Your task to perform on an android device: Go to Yahoo.com Image 0: 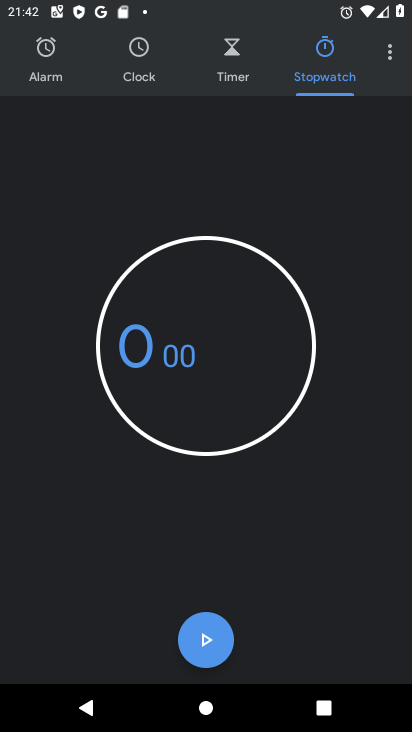
Step 0: press home button
Your task to perform on an android device: Go to Yahoo.com Image 1: 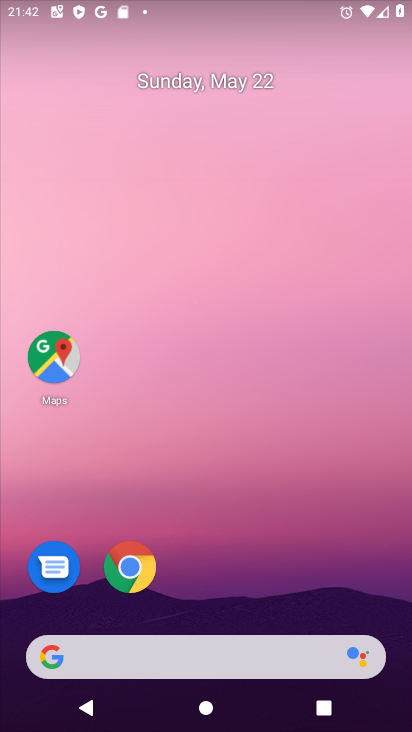
Step 1: click (126, 564)
Your task to perform on an android device: Go to Yahoo.com Image 2: 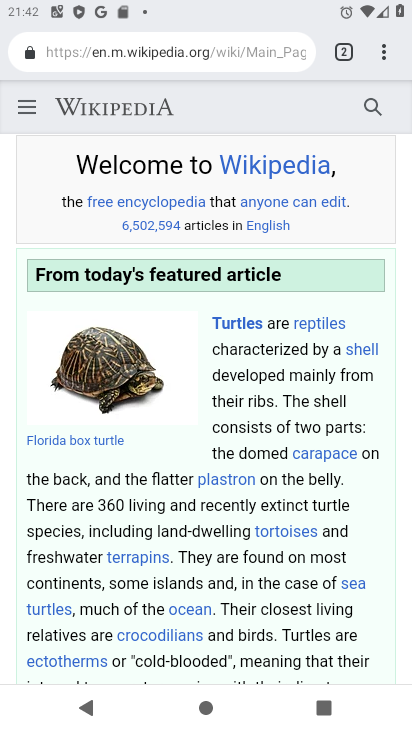
Step 2: click (220, 52)
Your task to perform on an android device: Go to Yahoo.com Image 3: 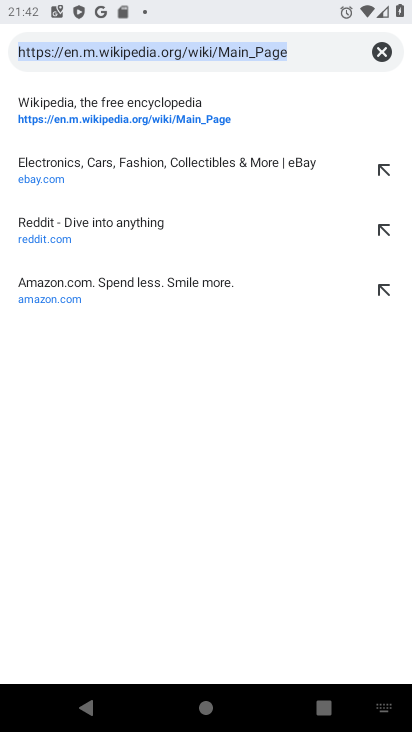
Step 3: type "Yahoo.com"
Your task to perform on an android device: Go to Yahoo.com Image 4: 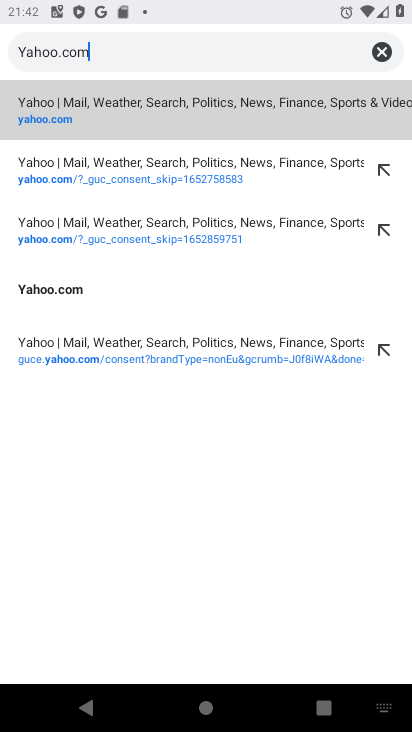
Step 4: click (179, 127)
Your task to perform on an android device: Go to Yahoo.com Image 5: 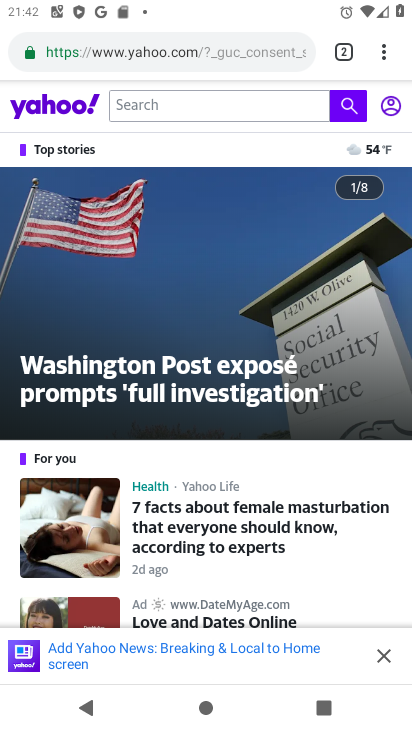
Step 5: task complete